Your task to perform on an android device: see sites visited before in the chrome app Image 0: 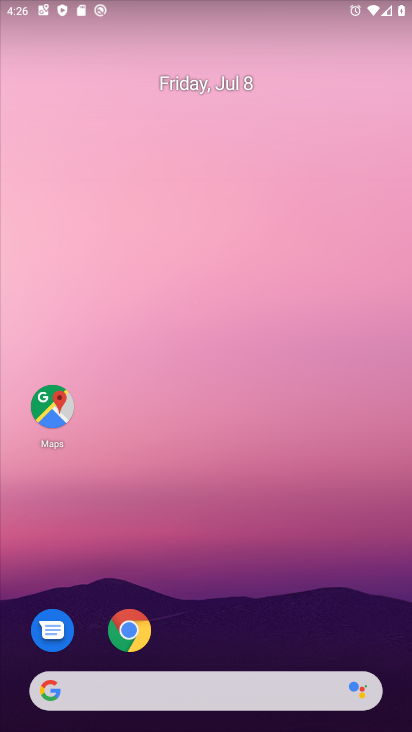
Step 0: click (130, 630)
Your task to perform on an android device: see sites visited before in the chrome app Image 1: 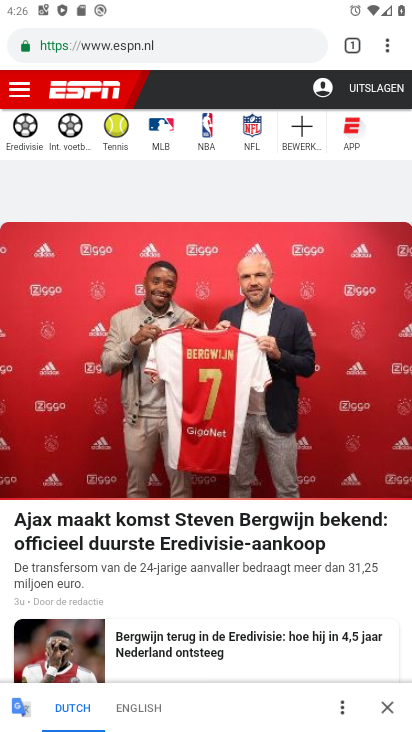
Step 1: click (386, 45)
Your task to perform on an android device: see sites visited before in the chrome app Image 2: 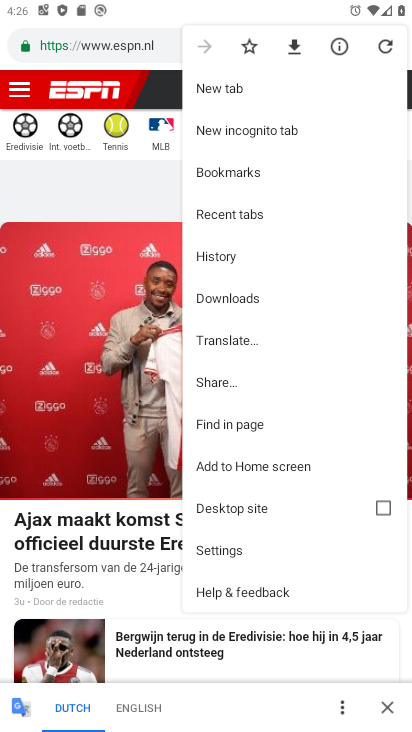
Step 2: click (216, 255)
Your task to perform on an android device: see sites visited before in the chrome app Image 3: 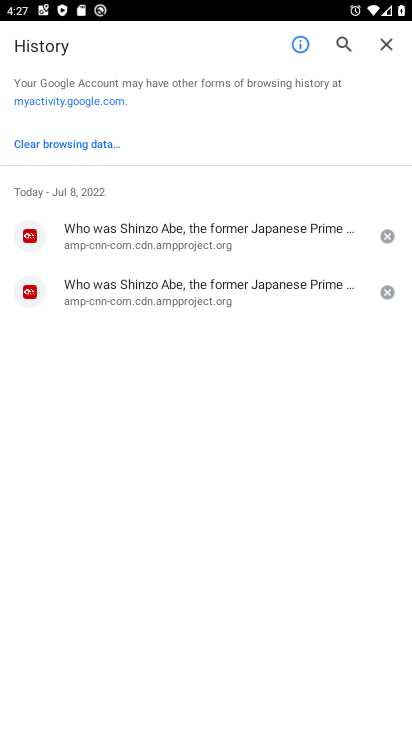
Step 3: task complete